Your task to perform on an android device: open a bookmark in the chrome app Image 0: 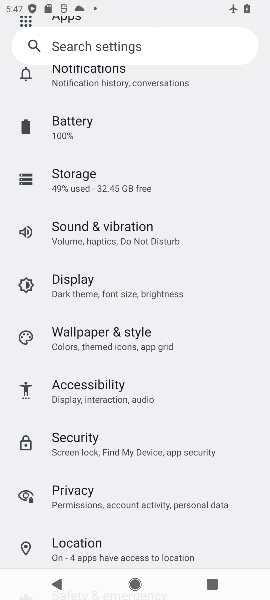
Step 0: press home button
Your task to perform on an android device: open a bookmark in the chrome app Image 1: 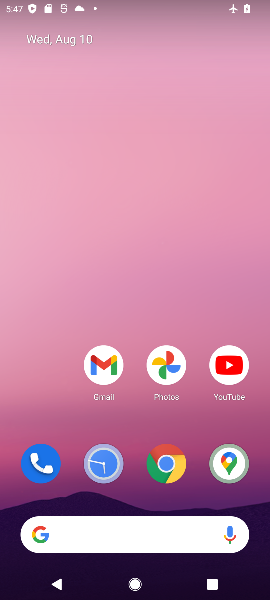
Step 1: click (169, 468)
Your task to perform on an android device: open a bookmark in the chrome app Image 2: 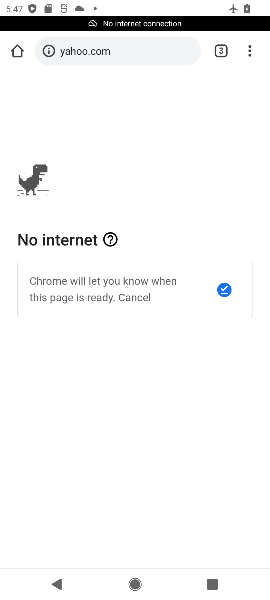
Step 2: click (247, 48)
Your task to perform on an android device: open a bookmark in the chrome app Image 3: 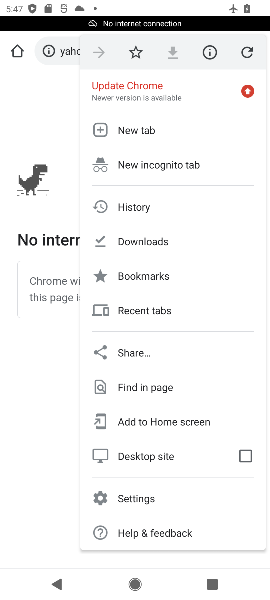
Step 3: click (145, 270)
Your task to perform on an android device: open a bookmark in the chrome app Image 4: 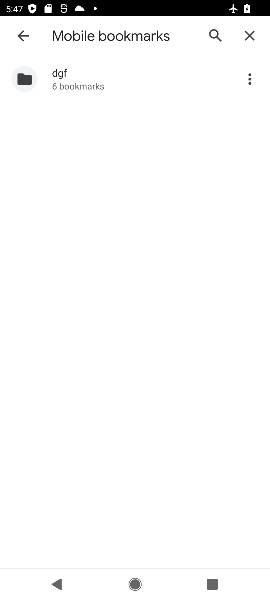
Step 4: task complete